Your task to perform on an android device: turn off notifications in google photos Image 0: 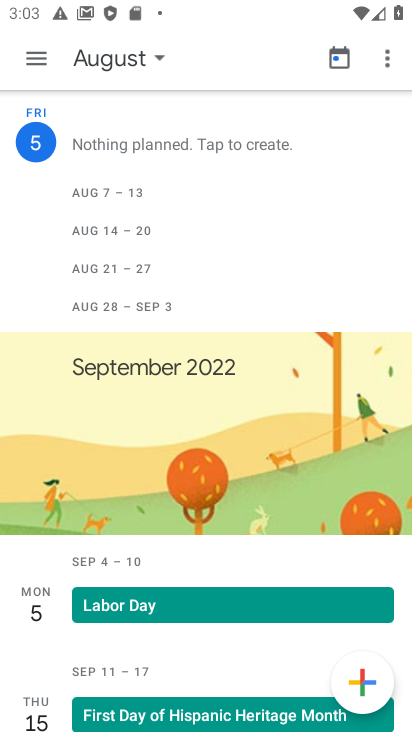
Step 0: press home button
Your task to perform on an android device: turn off notifications in google photos Image 1: 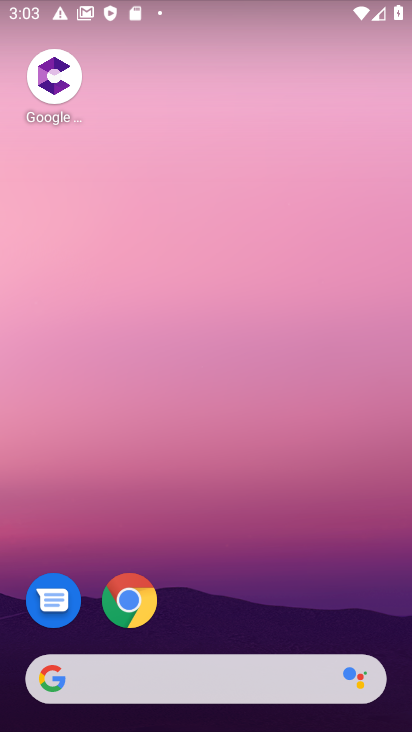
Step 1: drag from (193, 690) to (270, 196)
Your task to perform on an android device: turn off notifications in google photos Image 2: 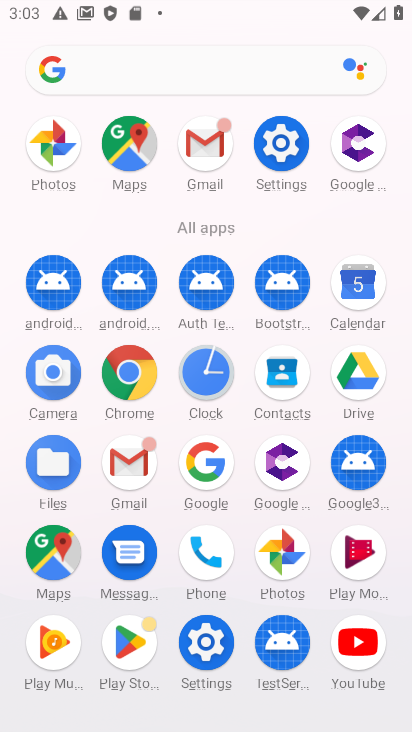
Step 2: click (54, 142)
Your task to perform on an android device: turn off notifications in google photos Image 3: 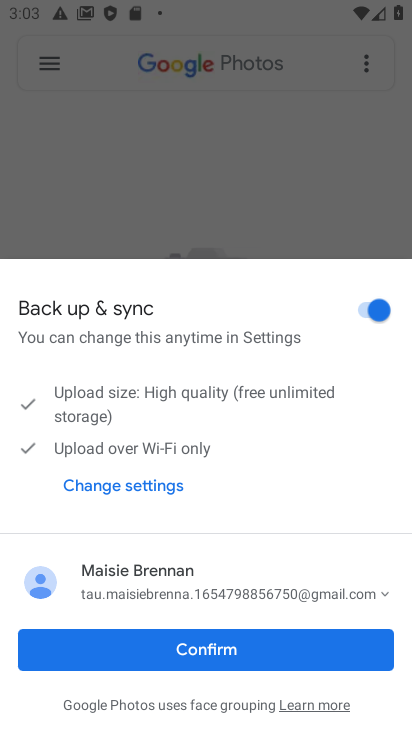
Step 3: click (213, 653)
Your task to perform on an android device: turn off notifications in google photos Image 4: 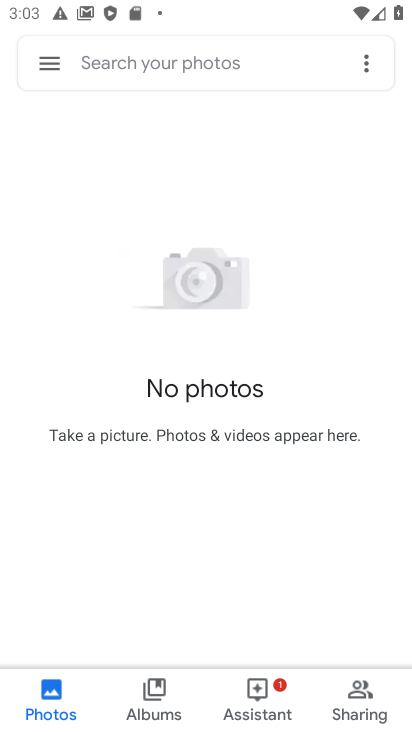
Step 4: click (47, 66)
Your task to perform on an android device: turn off notifications in google photos Image 5: 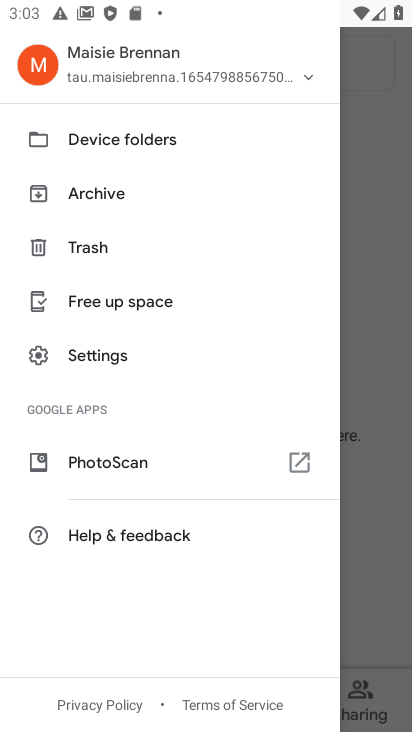
Step 5: click (98, 358)
Your task to perform on an android device: turn off notifications in google photos Image 6: 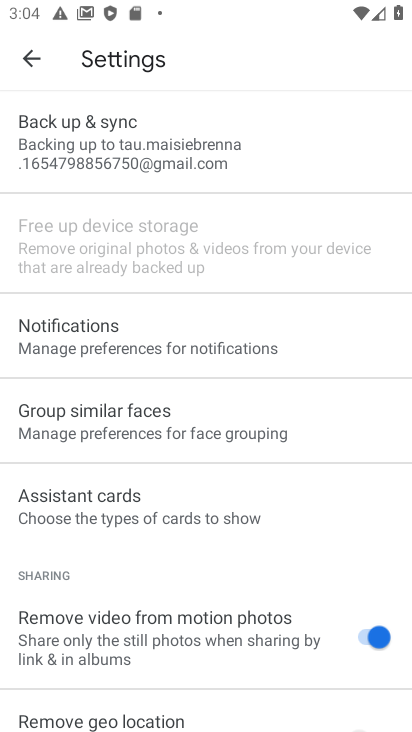
Step 6: click (120, 341)
Your task to perform on an android device: turn off notifications in google photos Image 7: 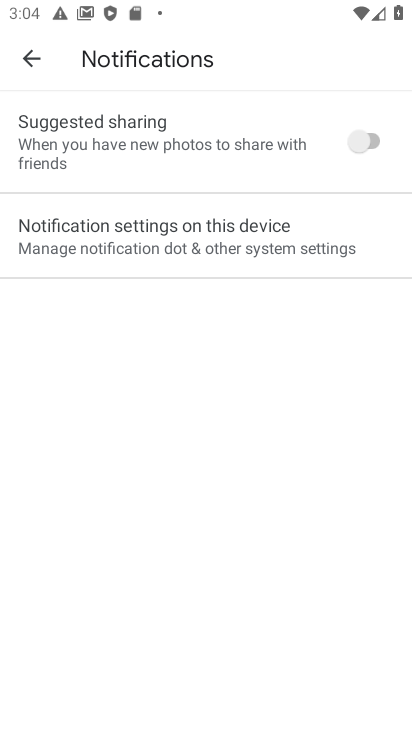
Step 7: click (146, 235)
Your task to perform on an android device: turn off notifications in google photos Image 8: 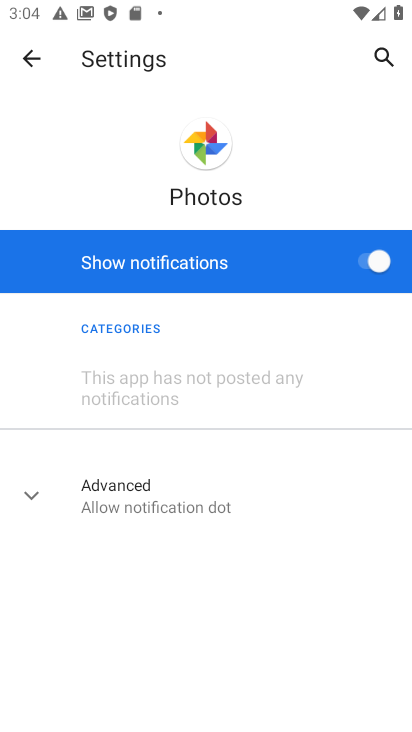
Step 8: click (372, 257)
Your task to perform on an android device: turn off notifications in google photos Image 9: 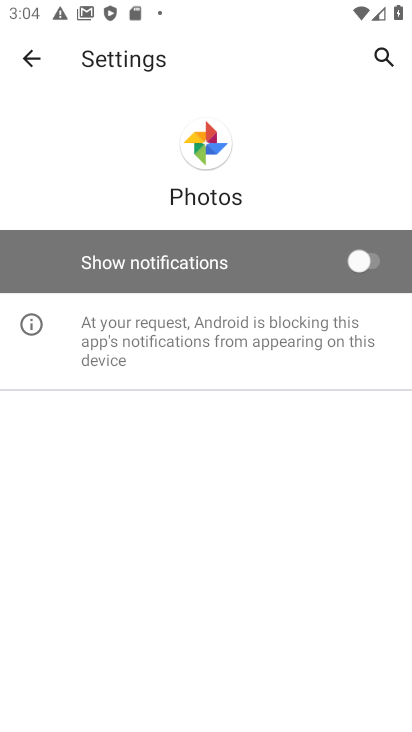
Step 9: task complete